Your task to perform on an android device: change alarm snooze length Image 0: 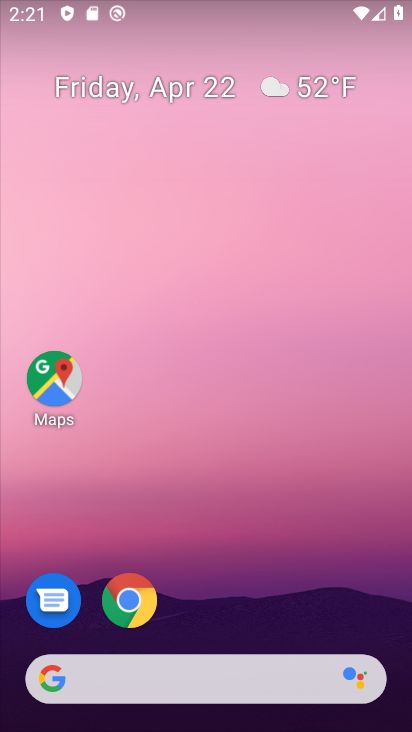
Step 0: drag from (293, 562) to (163, 25)
Your task to perform on an android device: change alarm snooze length Image 1: 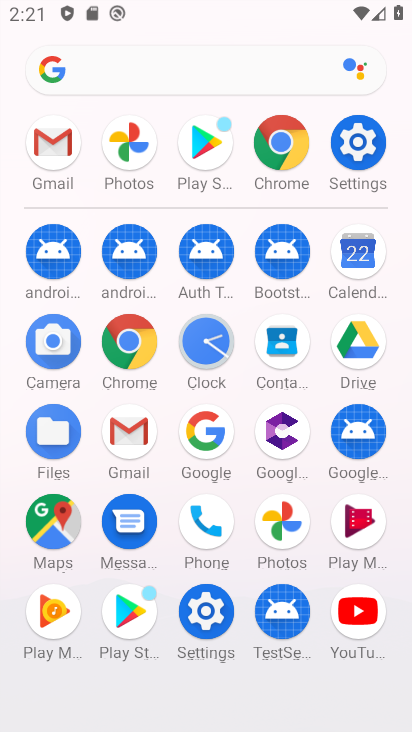
Step 1: drag from (1, 519) to (0, 281)
Your task to perform on an android device: change alarm snooze length Image 2: 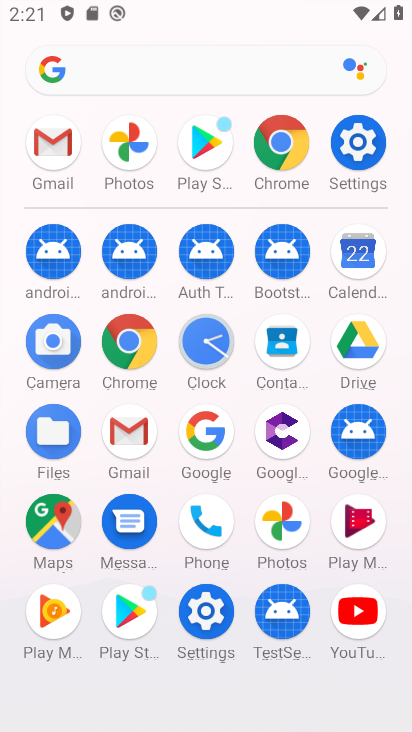
Step 2: click (201, 339)
Your task to perform on an android device: change alarm snooze length Image 3: 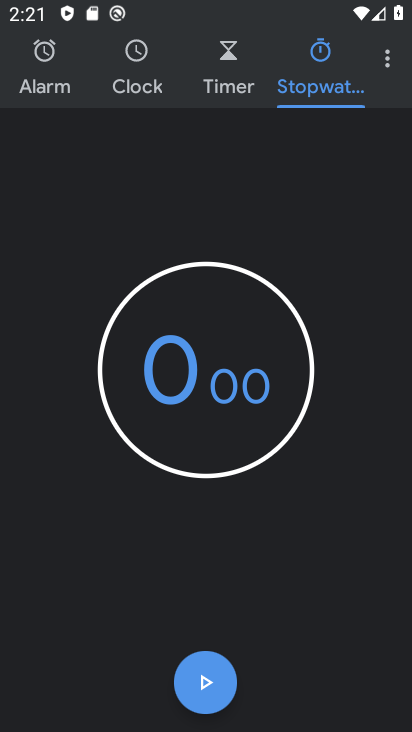
Step 3: drag from (382, 65) to (350, 118)
Your task to perform on an android device: change alarm snooze length Image 4: 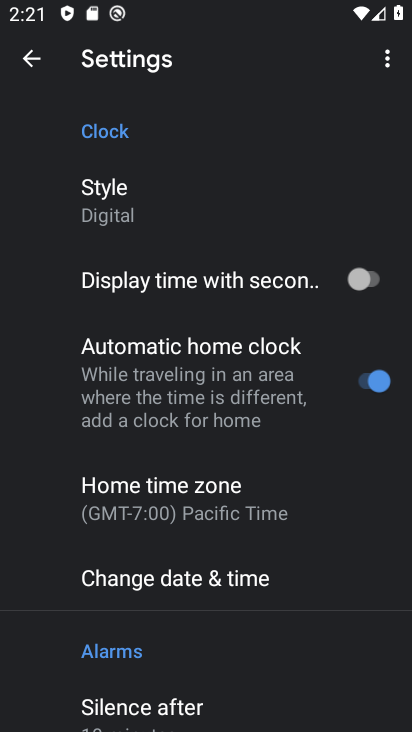
Step 4: drag from (204, 557) to (237, 215)
Your task to perform on an android device: change alarm snooze length Image 5: 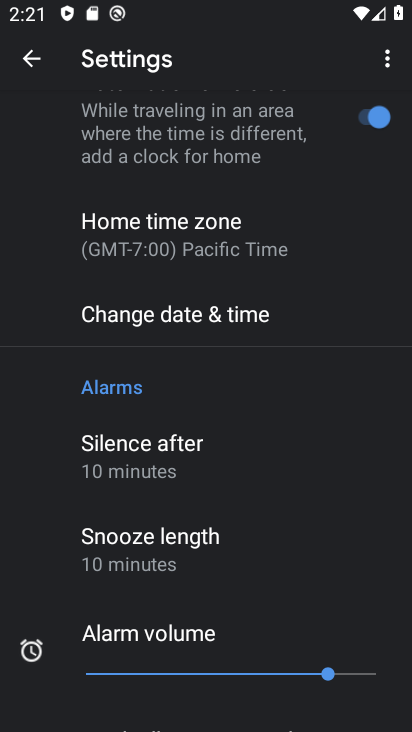
Step 5: click (202, 553)
Your task to perform on an android device: change alarm snooze length Image 6: 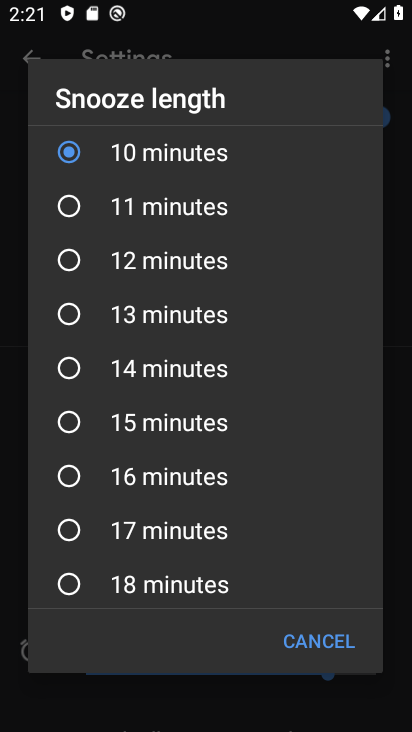
Step 6: click (125, 202)
Your task to perform on an android device: change alarm snooze length Image 7: 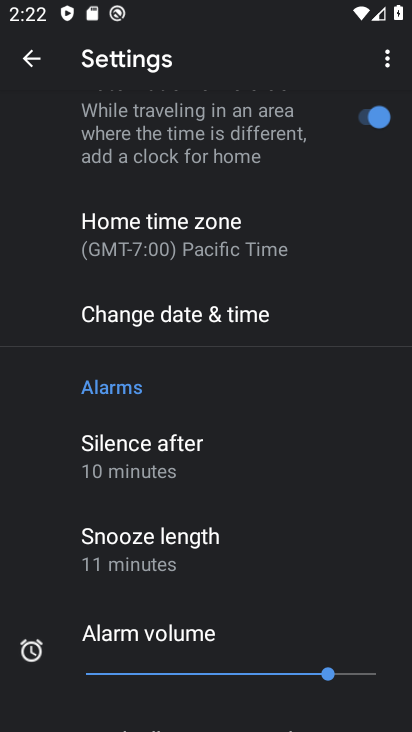
Step 7: task complete